Your task to perform on an android device: change text size in settings app Image 0: 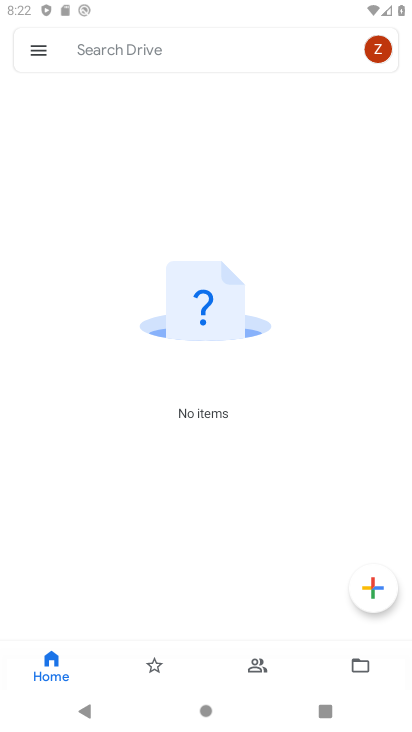
Step 0: press home button
Your task to perform on an android device: change text size in settings app Image 1: 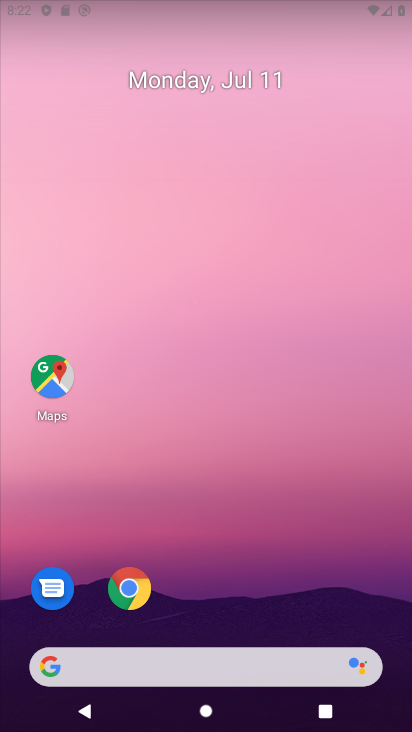
Step 1: drag from (286, 705) to (408, 56)
Your task to perform on an android device: change text size in settings app Image 2: 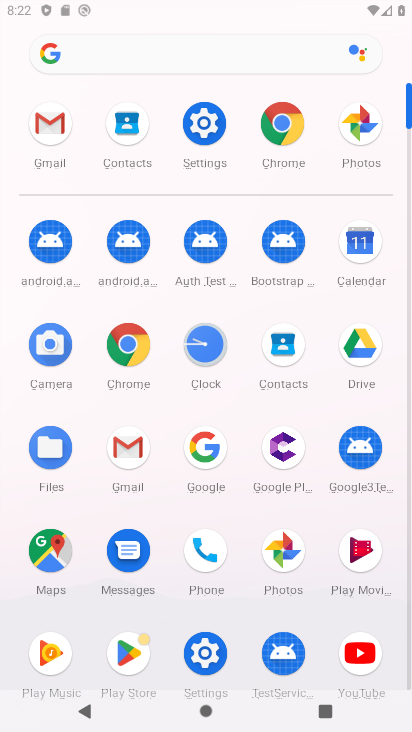
Step 2: click (221, 198)
Your task to perform on an android device: change text size in settings app Image 3: 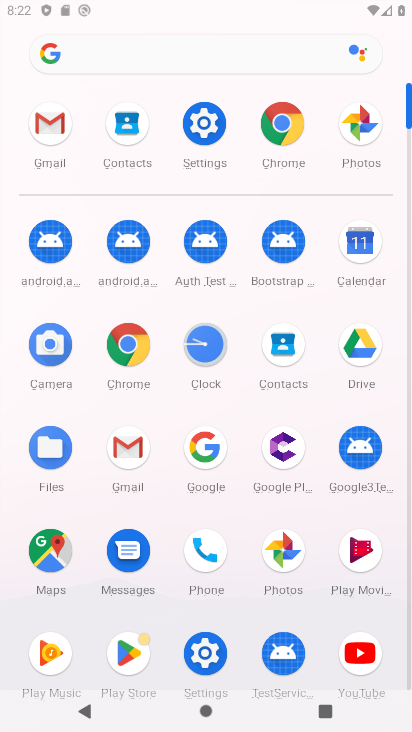
Step 3: click (231, 135)
Your task to perform on an android device: change text size in settings app Image 4: 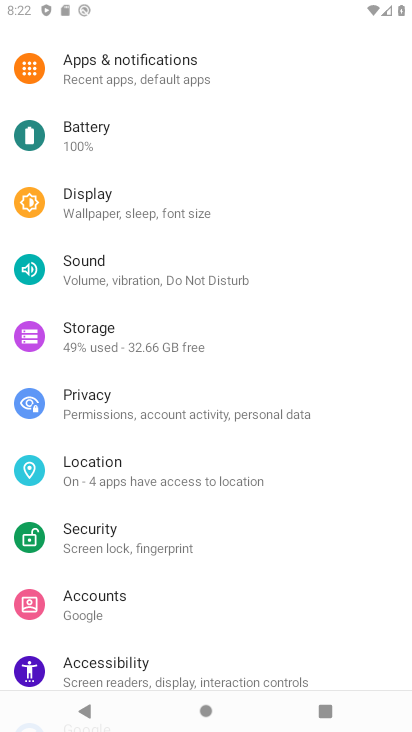
Step 4: click (176, 208)
Your task to perform on an android device: change text size in settings app Image 5: 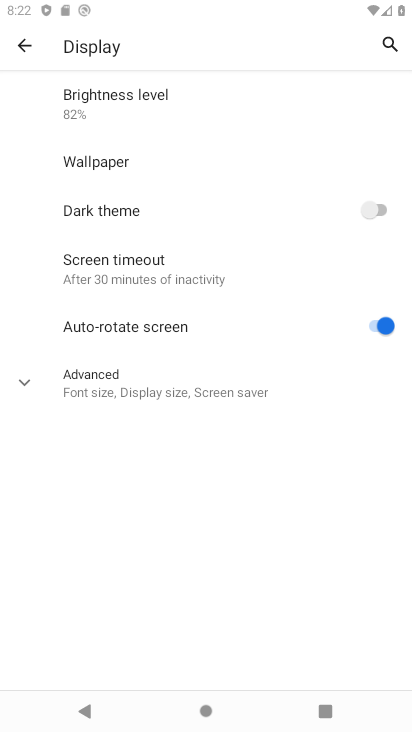
Step 5: click (161, 375)
Your task to perform on an android device: change text size in settings app Image 6: 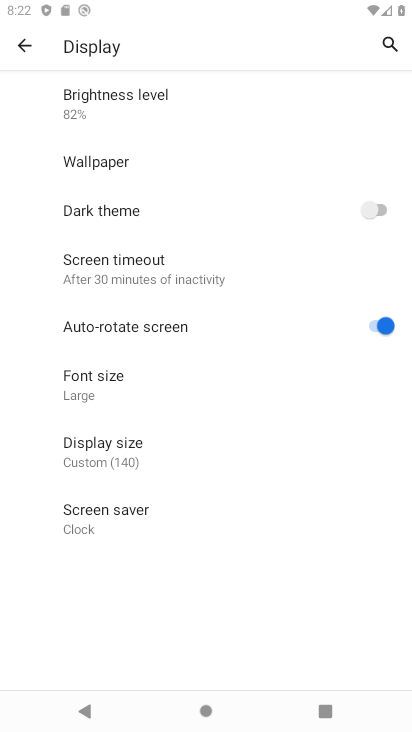
Step 6: click (138, 375)
Your task to perform on an android device: change text size in settings app Image 7: 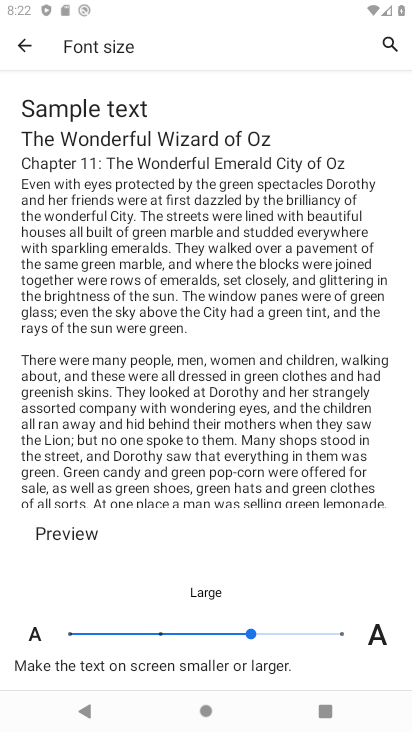
Step 7: click (157, 634)
Your task to perform on an android device: change text size in settings app Image 8: 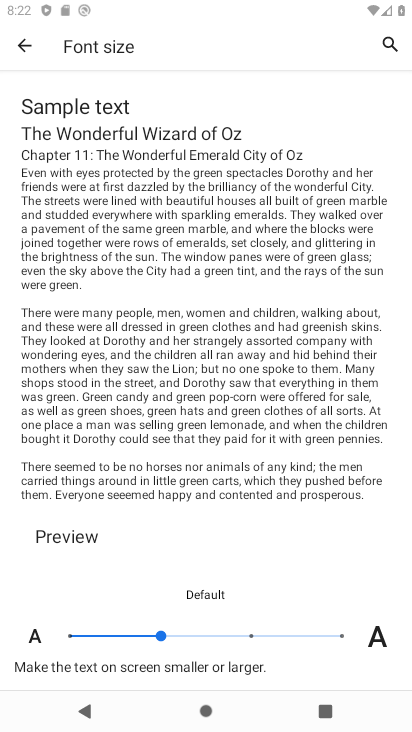
Step 8: task complete